Your task to perform on an android device: toggle show notifications on the lock screen Image 0: 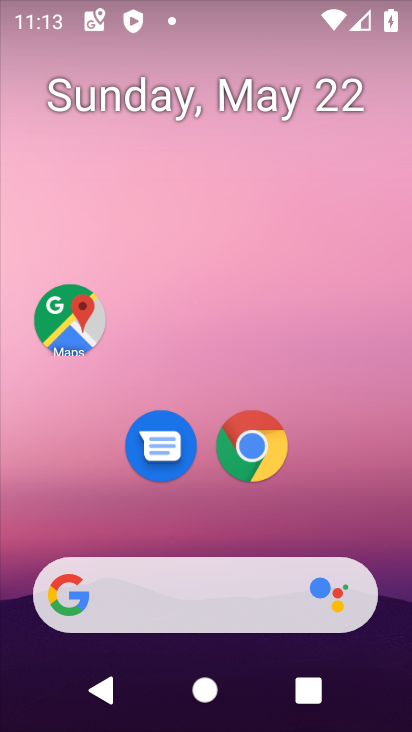
Step 0: drag from (197, 557) to (275, 64)
Your task to perform on an android device: toggle show notifications on the lock screen Image 1: 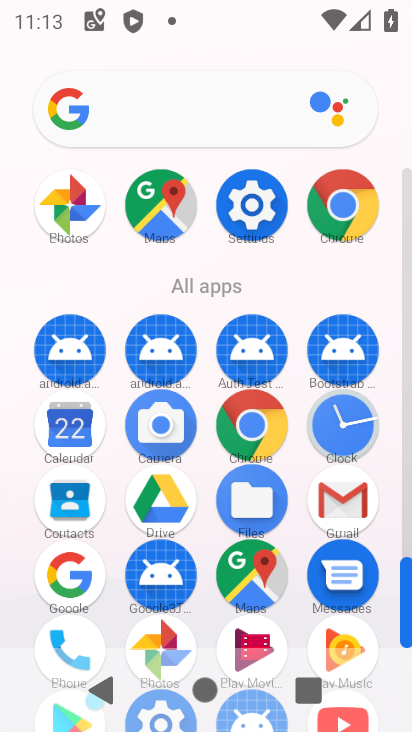
Step 1: click (252, 203)
Your task to perform on an android device: toggle show notifications on the lock screen Image 2: 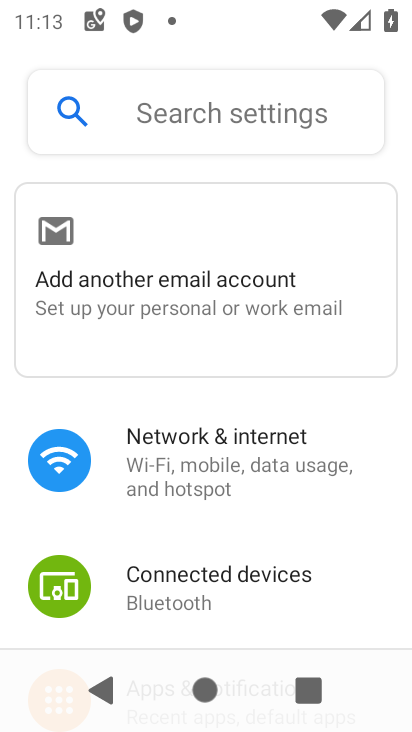
Step 2: drag from (202, 332) to (222, 219)
Your task to perform on an android device: toggle show notifications on the lock screen Image 3: 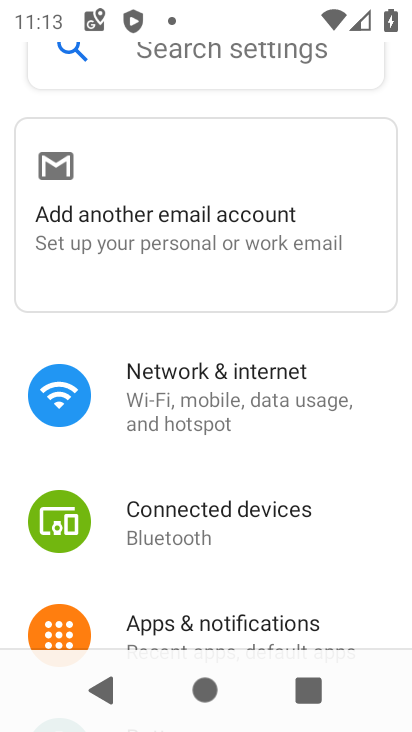
Step 3: click (215, 623)
Your task to perform on an android device: toggle show notifications on the lock screen Image 4: 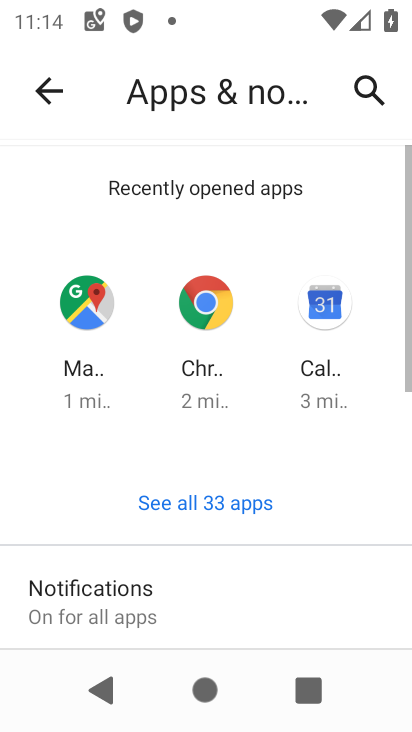
Step 4: drag from (203, 599) to (264, 258)
Your task to perform on an android device: toggle show notifications on the lock screen Image 5: 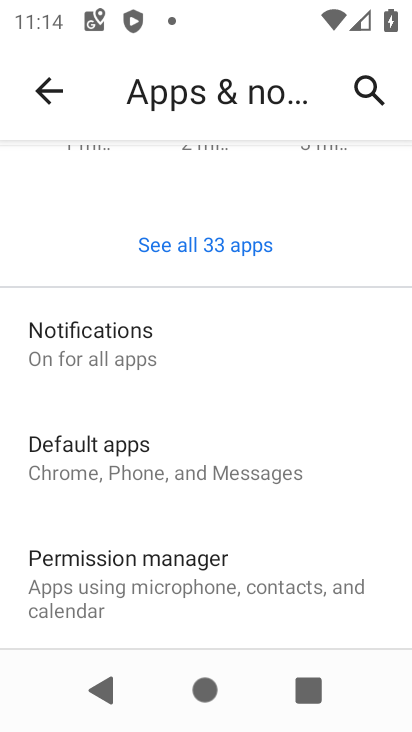
Step 5: click (168, 338)
Your task to perform on an android device: toggle show notifications on the lock screen Image 6: 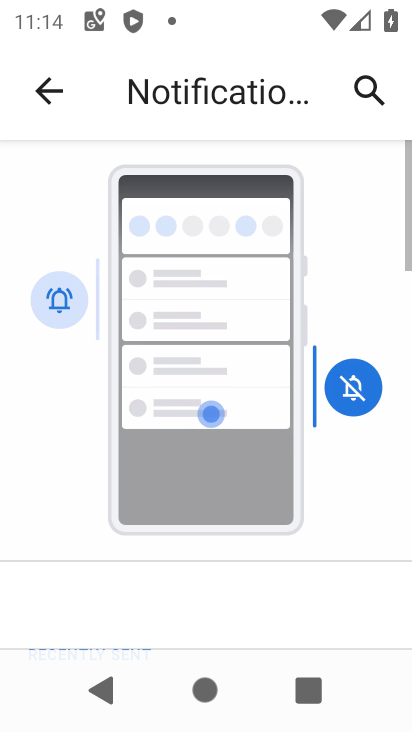
Step 6: drag from (180, 571) to (256, 39)
Your task to perform on an android device: toggle show notifications on the lock screen Image 7: 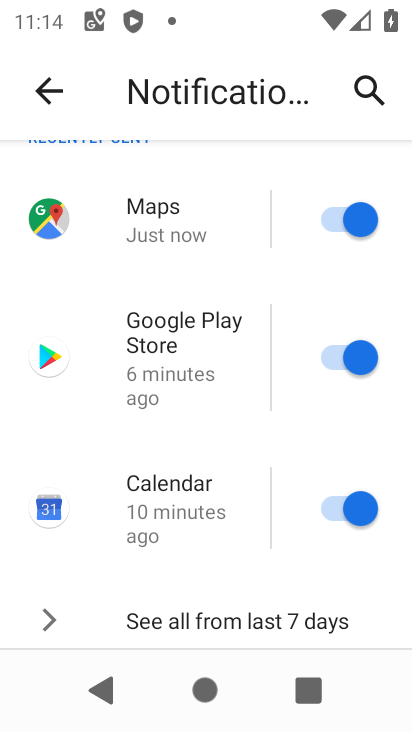
Step 7: drag from (127, 558) to (210, 142)
Your task to perform on an android device: toggle show notifications on the lock screen Image 8: 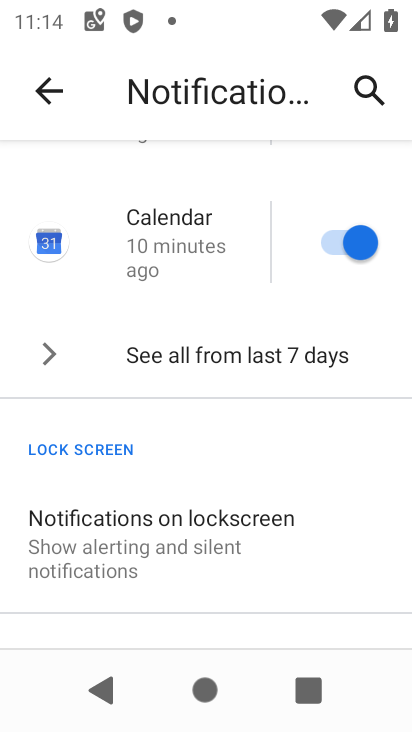
Step 8: click (158, 528)
Your task to perform on an android device: toggle show notifications on the lock screen Image 9: 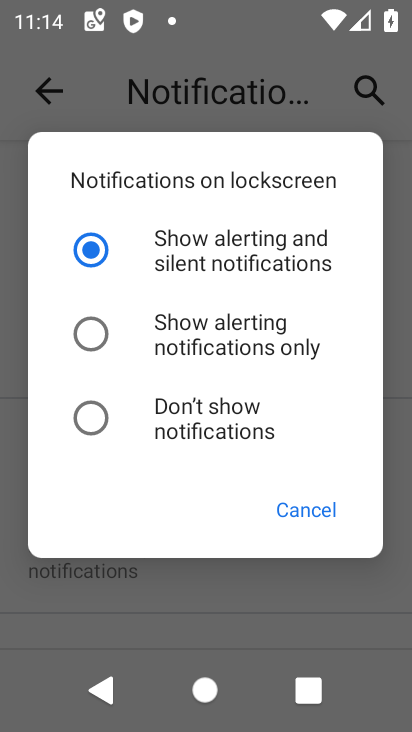
Step 9: click (93, 248)
Your task to perform on an android device: toggle show notifications on the lock screen Image 10: 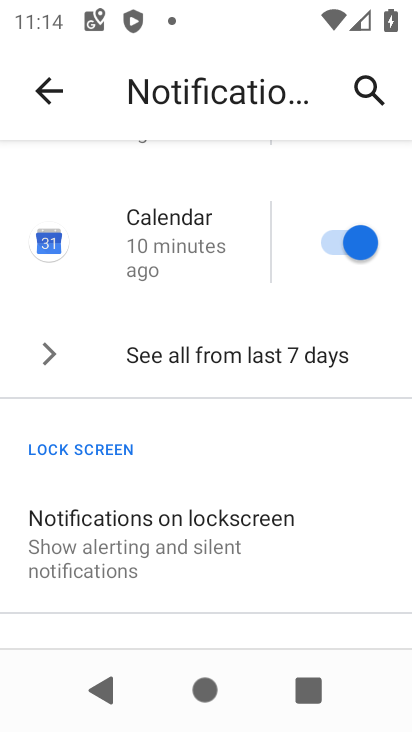
Step 10: task complete